Your task to perform on an android device: Go to privacy settings Image 0: 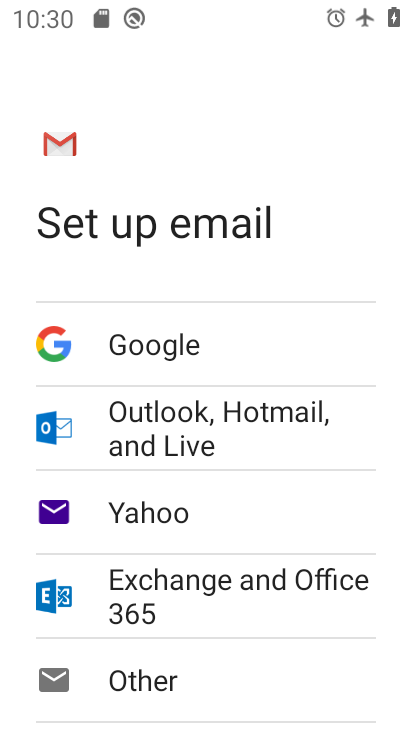
Step 0: press home button
Your task to perform on an android device: Go to privacy settings Image 1: 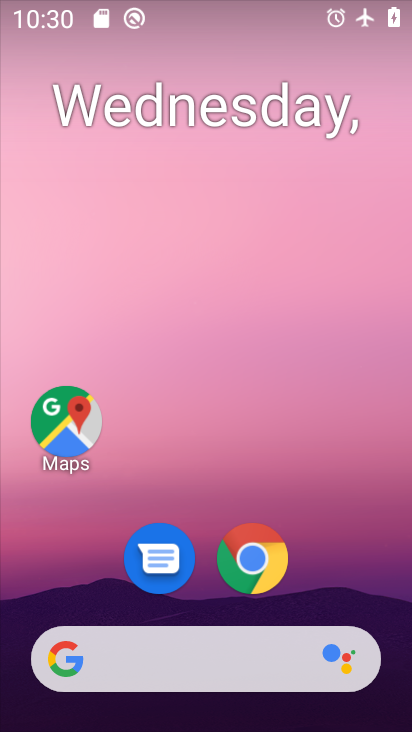
Step 1: drag from (357, 586) to (407, 192)
Your task to perform on an android device: Go to privacy settings Image 2: 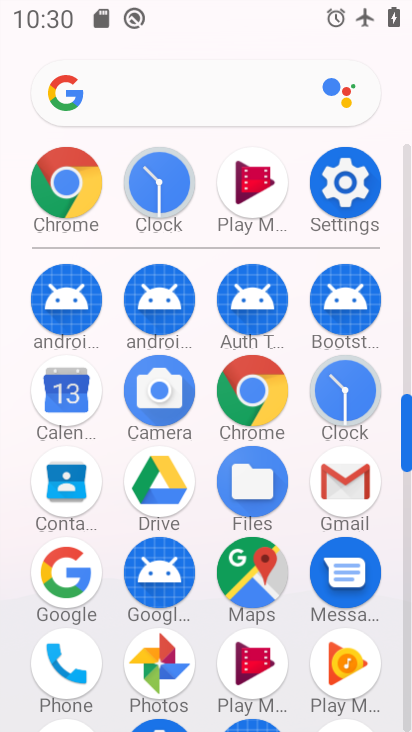
Step 2: click (336, 175)
Your task to perform on an android device: Go to privacy settings Image 3: 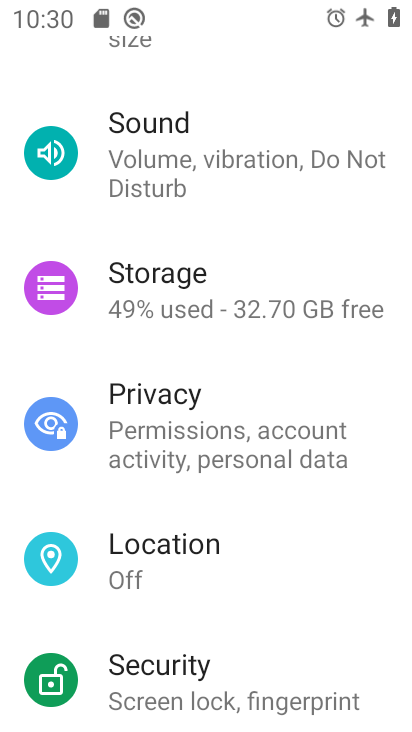
Step 3: drag from (338, 577) to (340, 449)
Your task to perform on an android device: Go to privacy settings Image 4: 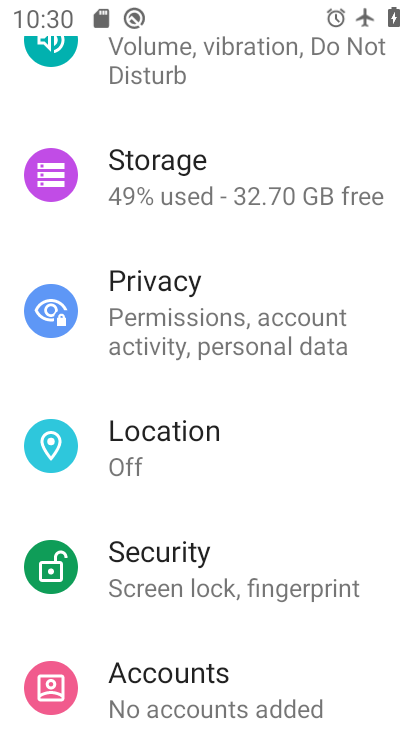
Step 4: drag from (357, 639) to (375, 495)
Your task to perform on an android device: Go to privacy settings Image 5: 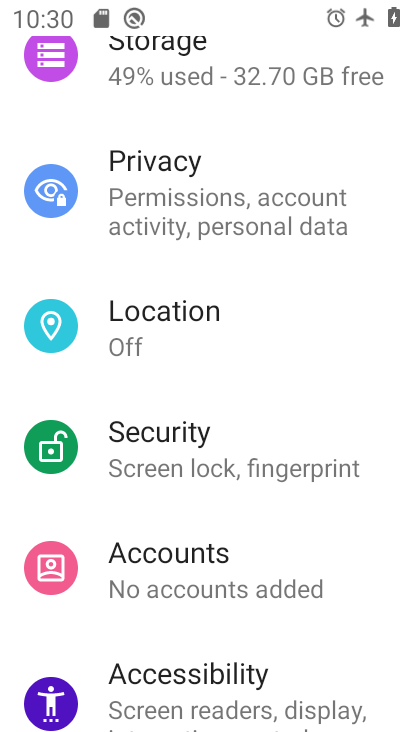
Step 5: drag from (376, 614) to (373, 494)
Your task to perform on an android device: Go to privacy settings Image 6: 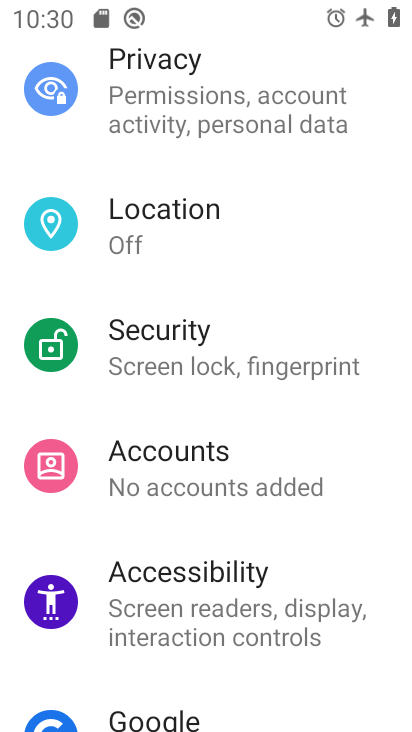
Step 6: drag from (361, 645) to (362, 529)
Your task to perform on an android device: Go to privacy settings Image 7: 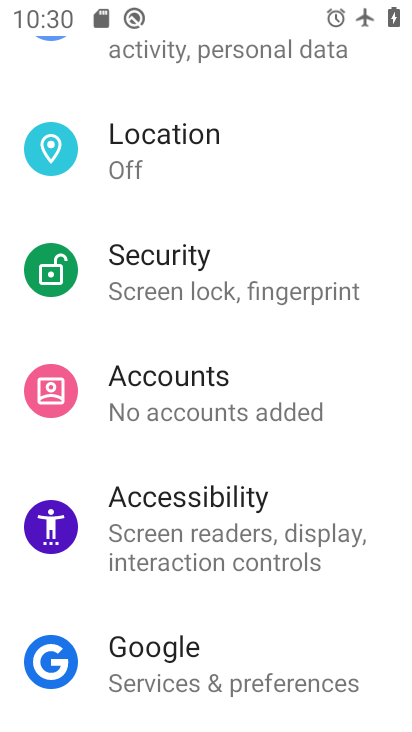
Step 7: drag from (375, 392) to (371, 638)
Your task to perform on an android device: Go to privacy settings Image 8: 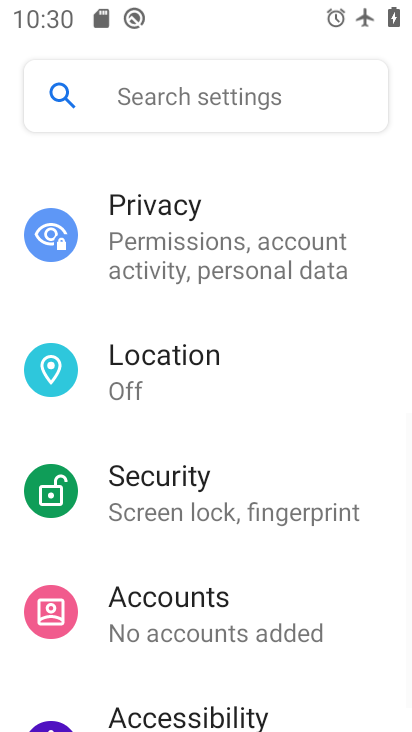
Step 8: drag from (353, 376) to (370, 567)
Your task to perform on an android device: Go to privacy settings Image 9: 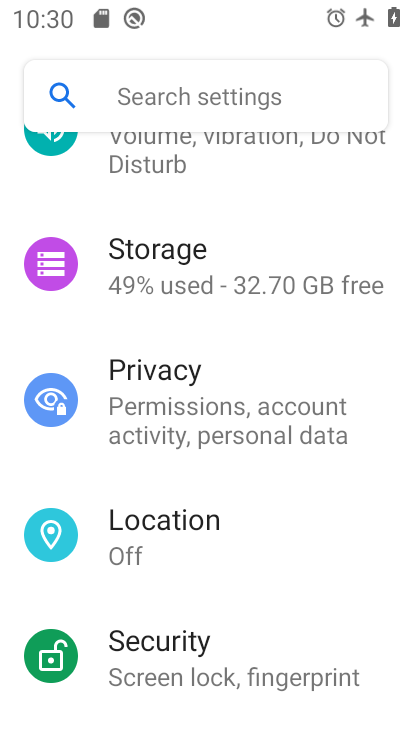
Step 9: drag from (365, 350) to (375, 507)
Your task to perform on an android device: Go to privacy settings Image 10: 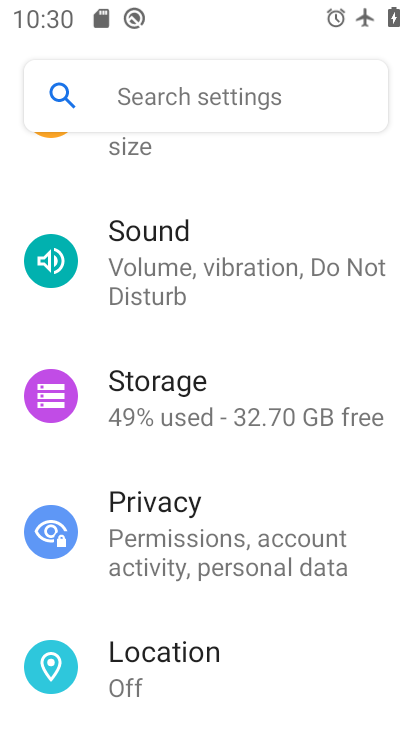
Step 10: click (287, 557)
Your task to perform on an android device: Go to privacy settings Image 11: 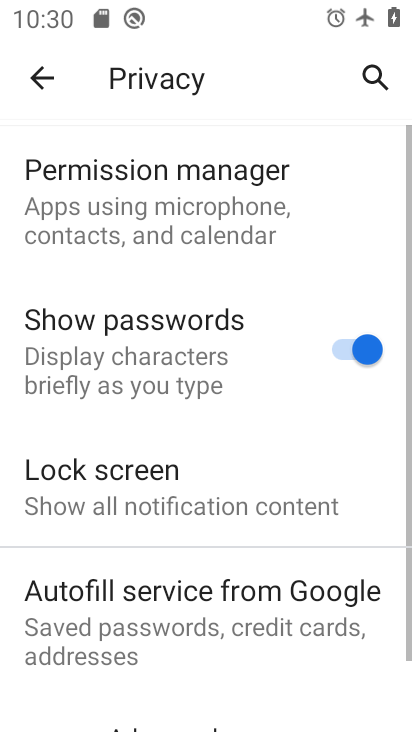
Step 11: task complete